Your task to perform on an android device: delete a single message in the gmail app Image 0: 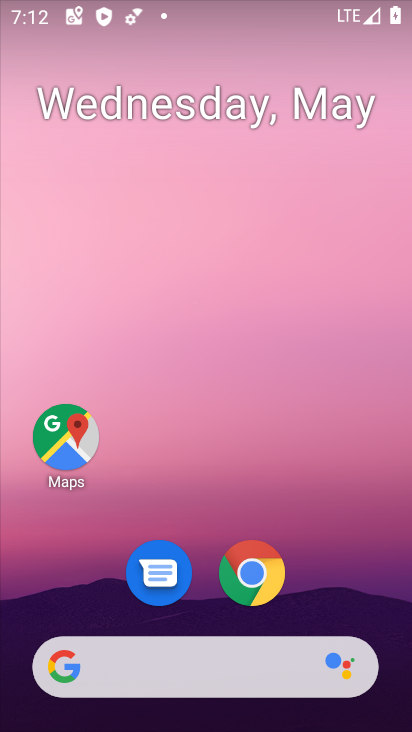
Step 0: drag from (308, 581) to (281, 263)
Your task to perform on an android device: delete a single message in the gmail app Image 1: 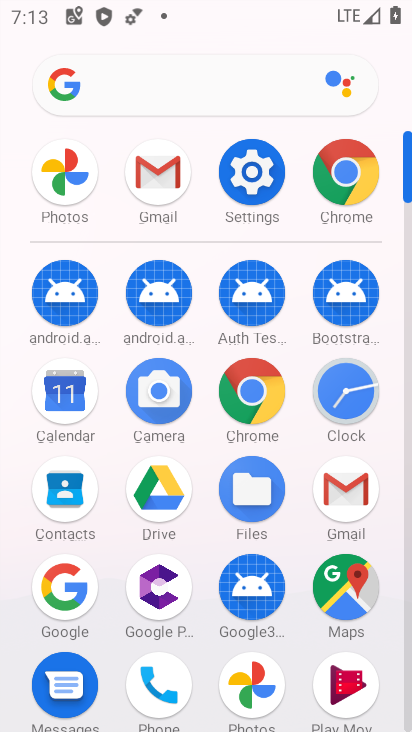
Step 1: click (362, 506)
Your task to perform on an android device: delete a single message in the gmail app Image 2: 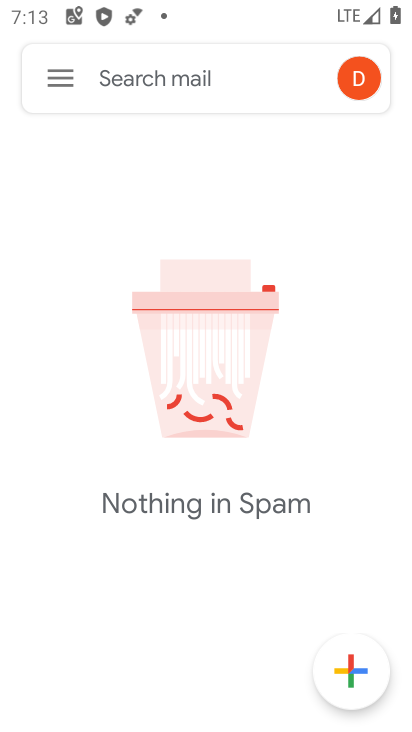
Step 2: click (54, 88)
Your task to perform on an android device: delete a single message in the gmail app Image 3: 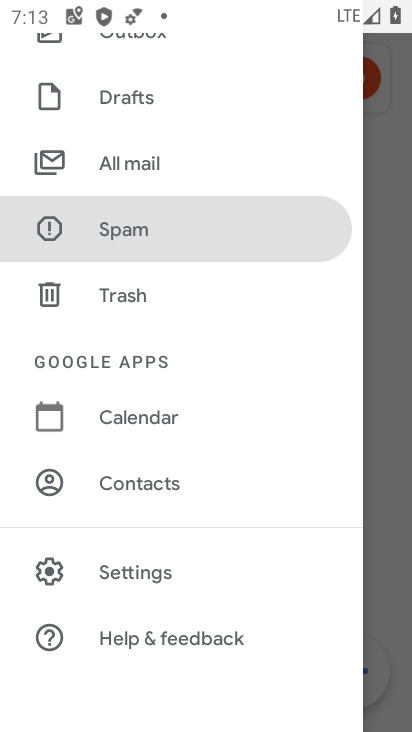
Step 3: click (127, 163)
Your task to perform on an android device: delete a single message in the gmail app Image 4: 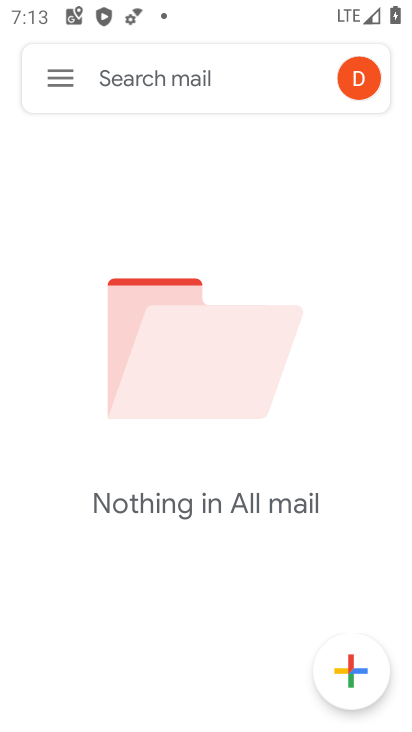
Step 4: task complete